Your task to perform on an android device: change the clock display to analog Image 0: 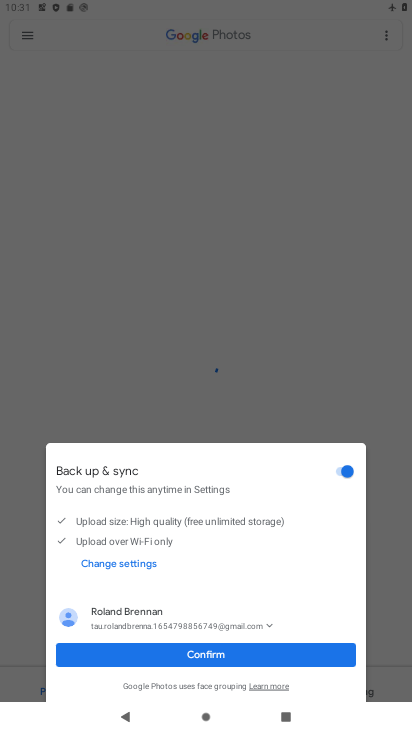
Step 0: press home button
Your task to perform on an android device: change the clock display to analog Image 1: 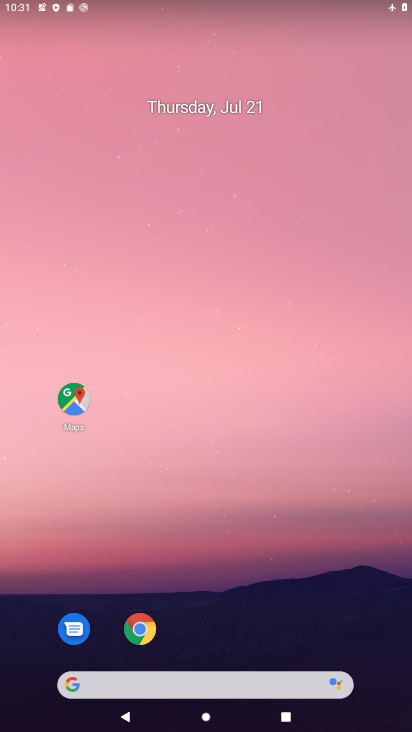
Step 1: drag from (279, 553) to (288, 307)
Your task to perform on an android device: change the clock display to analog Image 2: 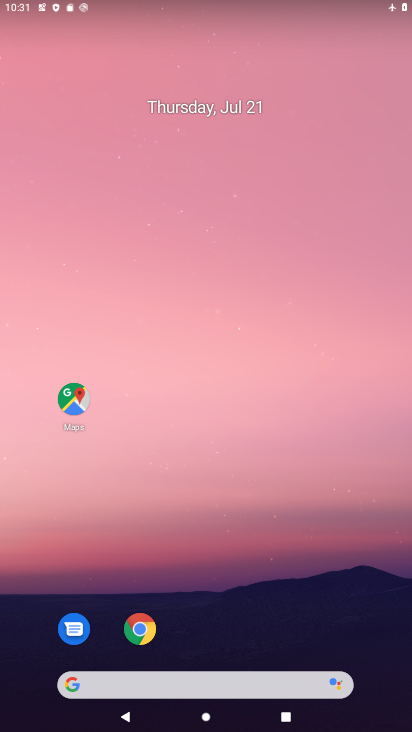
Step 2: drag from (263, 550) to (259, 283)
Your task to perform on an android device: change the clock display to analog Image 3: 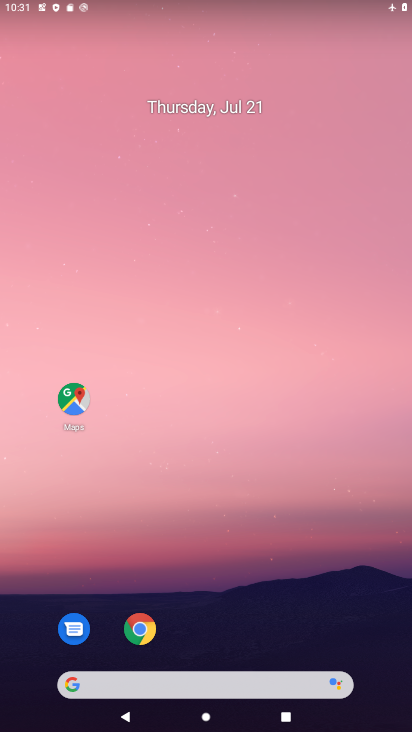
Step 3: drag from (256, 595) to (261, 216)
Your task to perform on an android device: change the clock display to analog Image 4: 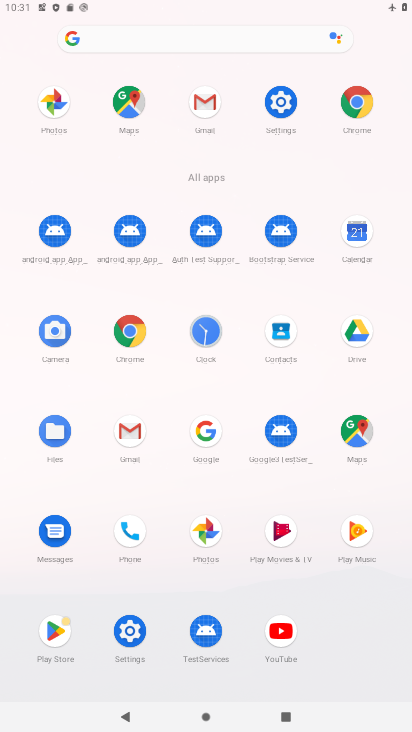
Step 4: click (213, 333)
Your task to perform on an android device: change the clock display to analog Image 5: 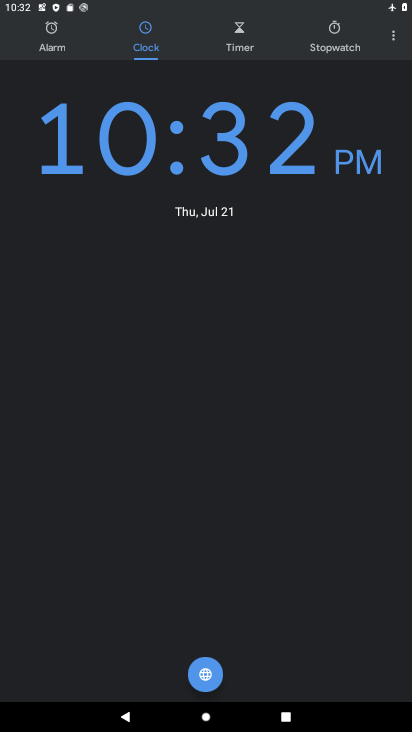
Step 5: click (387, 39)
Your task to perform on an android device: change the clock display to analog Image 6: 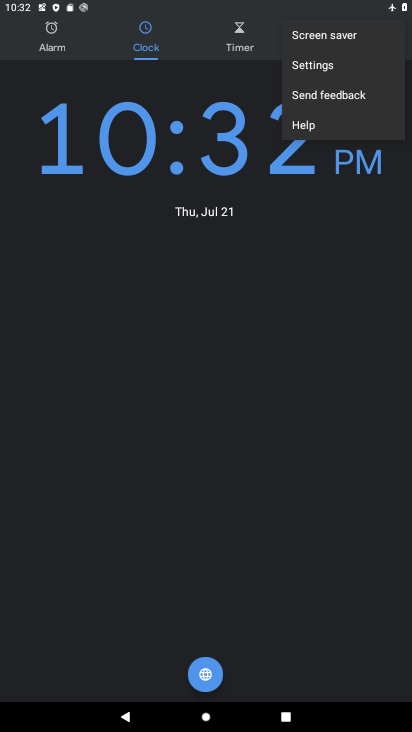
Step 6: click (338, 72)
Your task to perform on an android device: change the clock display to analog Image 7: 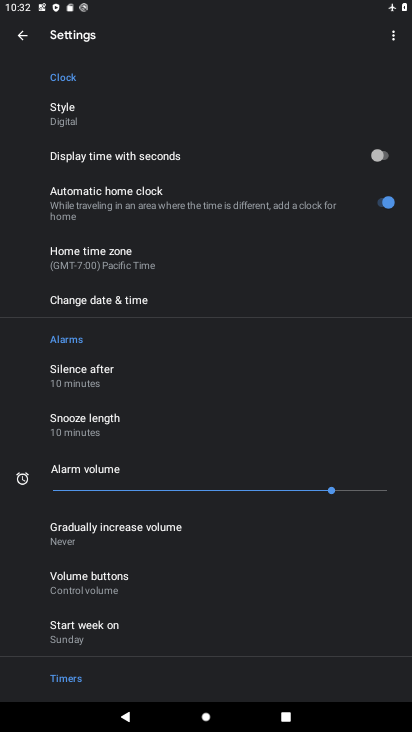
Step 7: click (108, 112)
Your task to perform on an android device: change the clock display to analog Image 8: 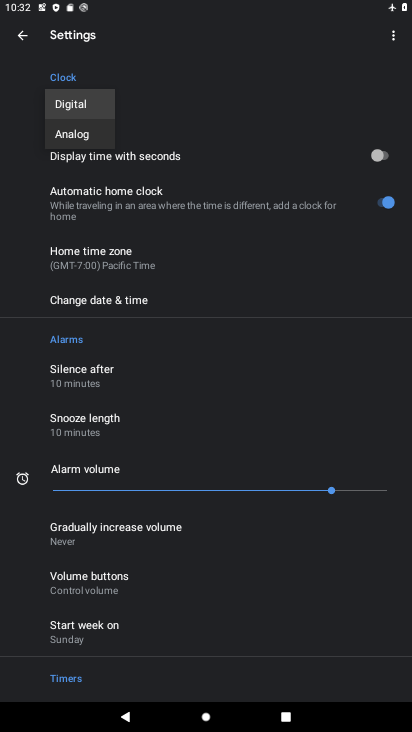
Step 8: click (98, 137)
Your task to perform on an android device: change the clock display to analog Image 9: 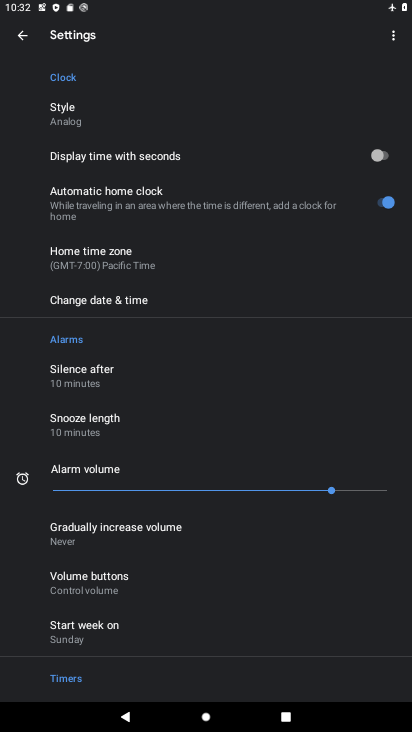
Step 9: task complete